Your task to perform on an android device: toggle airplane mode Image 0: 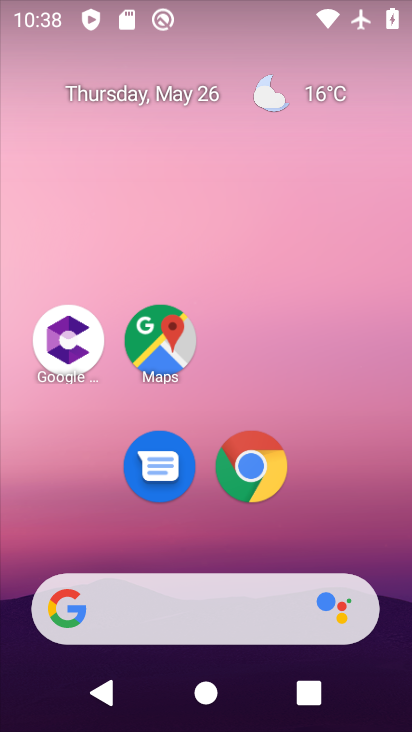
Step 0: drag from (339, 526) to (204, 78)
Your task to perform on an android device: toggle airplane mode Image 1: 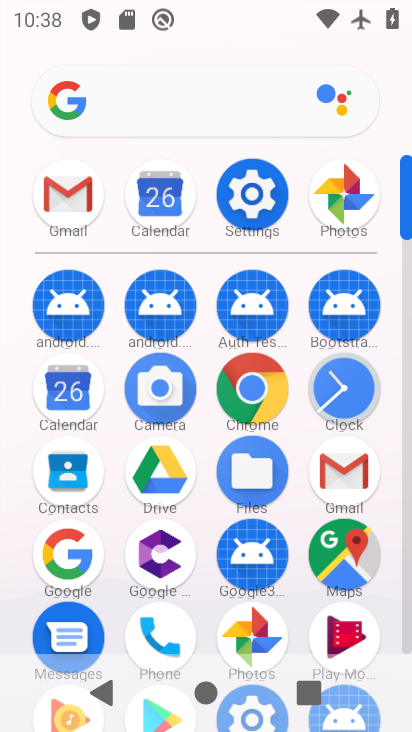
Step 1: click (247, 189)
Your task to perform on an android device: toggle airplane mode Image 2: 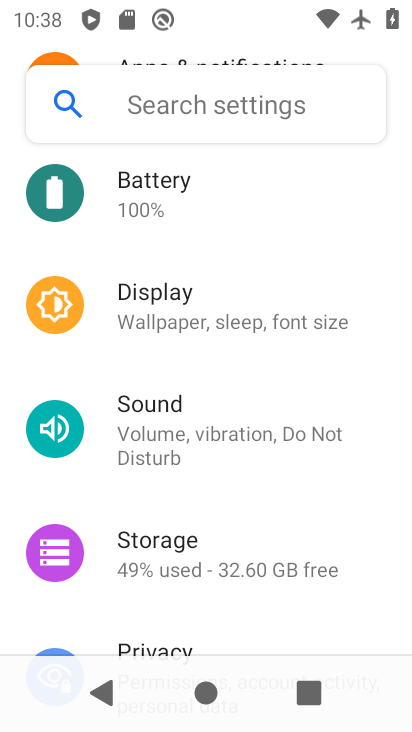
Step 2: drag from (248, 227) to (326, 696)
Your task to perform on an android device: toggle airplane mode Image 3: 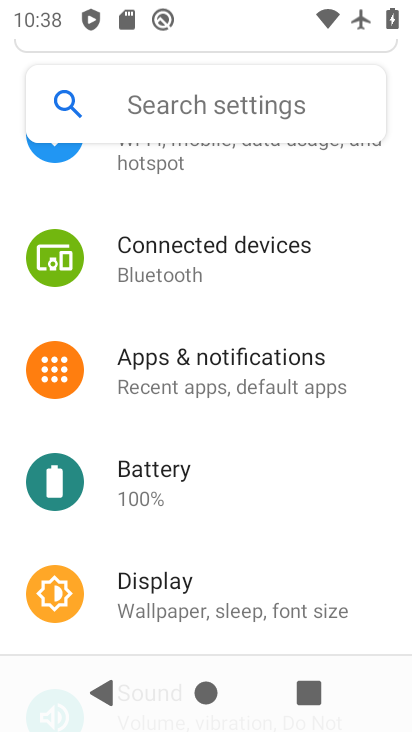
Step 3: click (150, 144)
Your task to perform on an android device: toggle airplane mode Image 4: 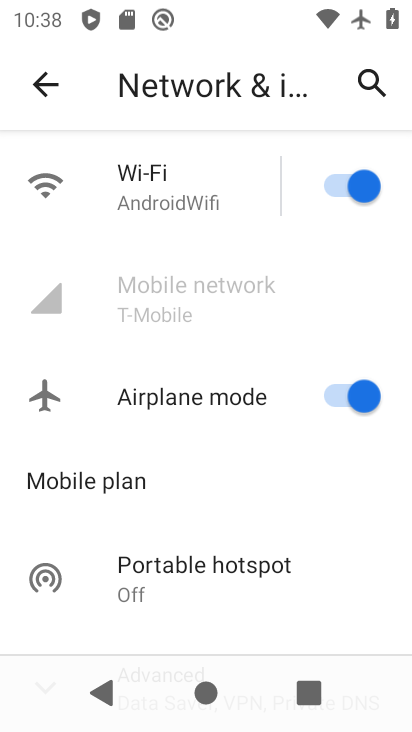
Step 4: click (352, 398)
Your task to perform on an android device: toggle airplane mode Image 5: 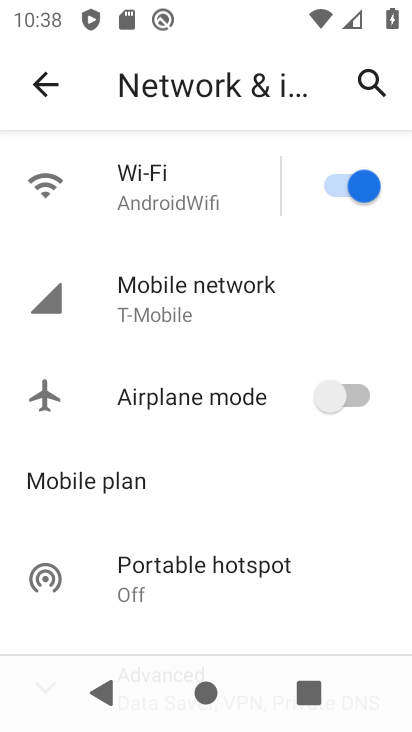
Step 5: task complete